Your task to perform on an android device: Open Chrome and go to the settings page Image 0: 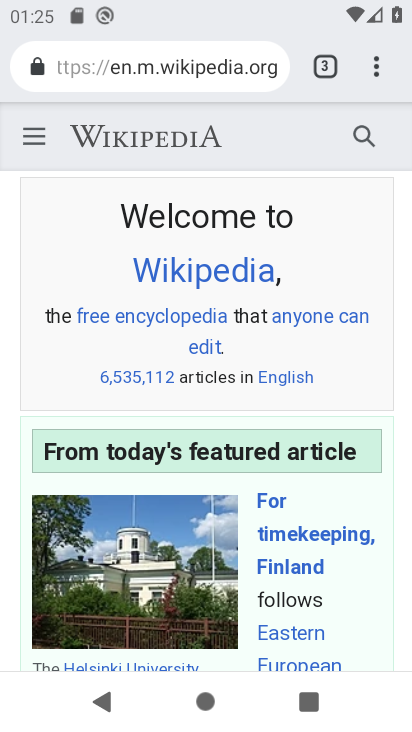
Step 0: press home button
Your task to perform on an android device: Open Chrome and go to the settings page Image 1: 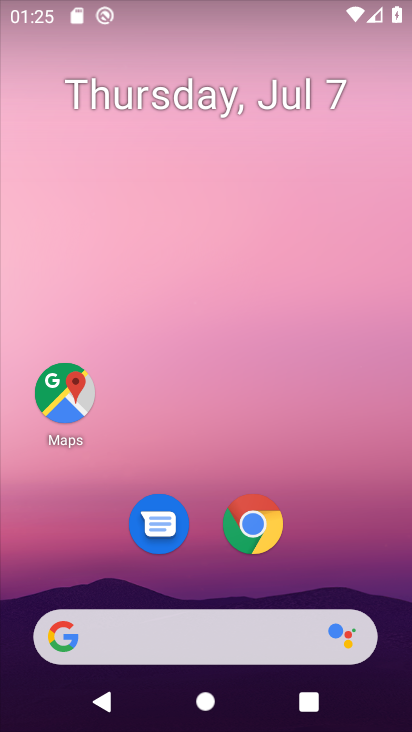
Step 1: click (247, 526)
Your task to perform on an android device: Open Chrome and go to the settings page Image 2: 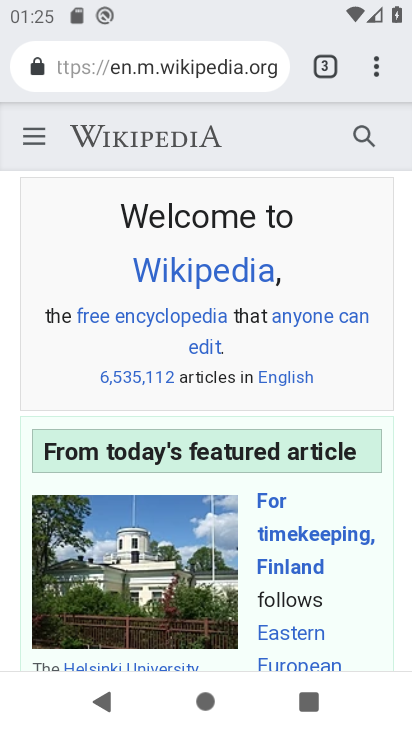
Step 2: click (377, 66)
Your task to perform on an android device: Open Chrome and go to the settings page Image 3: 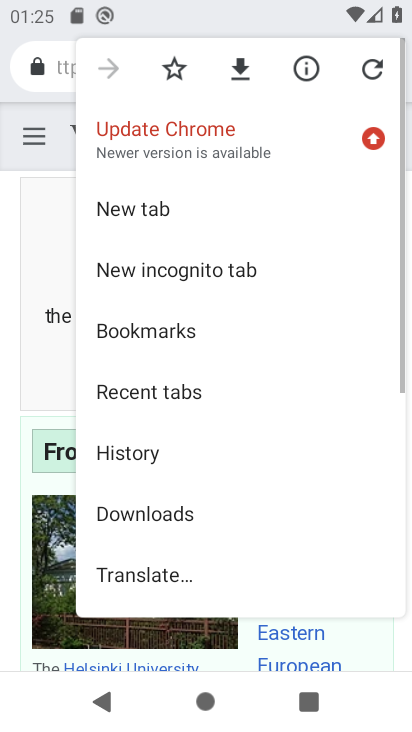
Step 3: click (377, 66)
Your task to perform on an android device: Open Chrome and go to the settings page Image 4: 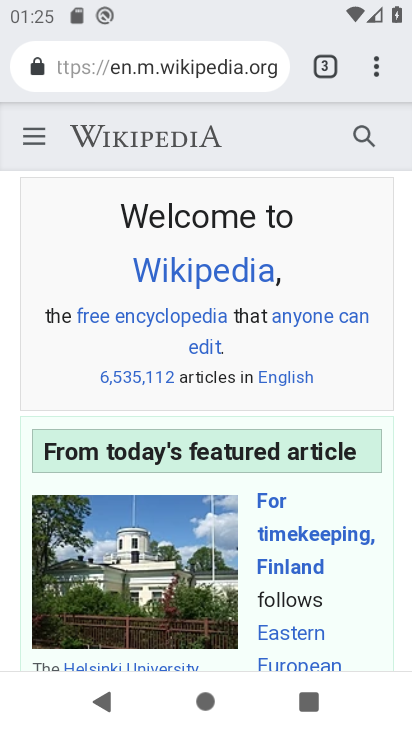
Step 4: click (377, 66)
Your task to perform on an android device: Open Chrome and go to the settings page Image 5: 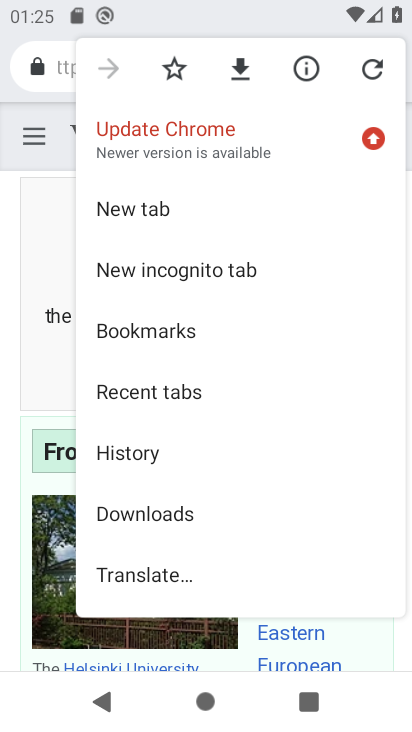
Step 5: drag from (257, 391) to (259, 130)
Your task to perform on an android device: Open Chrome and go to the settings page Image 6: 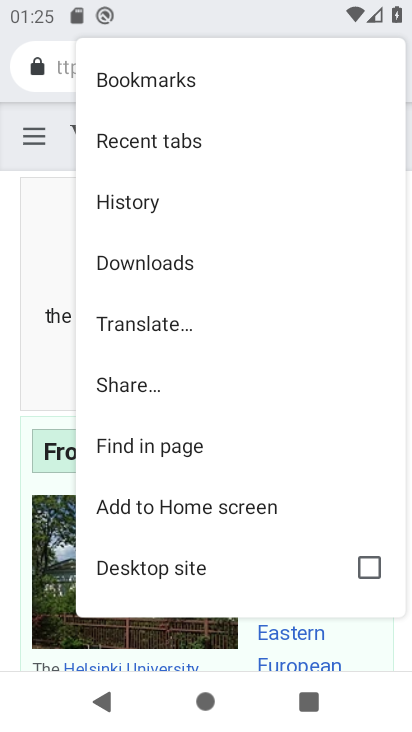
Step 6: drag from (200, 410) to (212, 139)
Your task to perform on an android device: Open Chrome and go to the settings page Image 7: 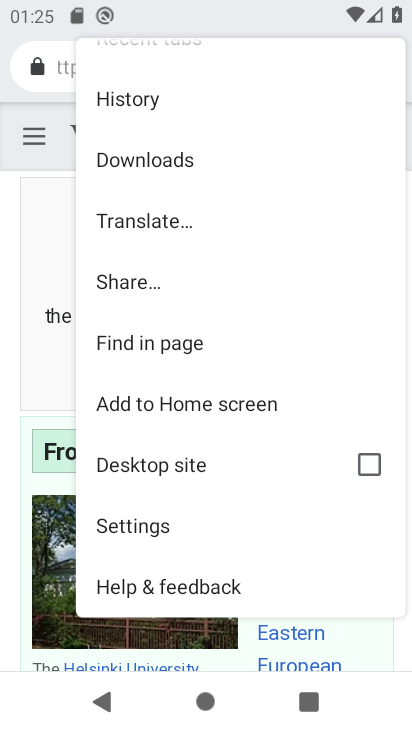
Step 7: click (170, 514)
Your task to perform on an android device: Open Chrome and go to the settings page Image 8: 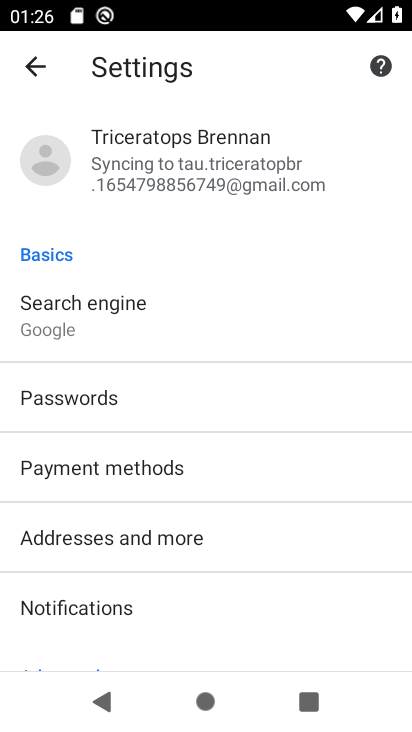
Step 8: task complete